Your task to perform on an android device: Open ESPN.com Image 0: 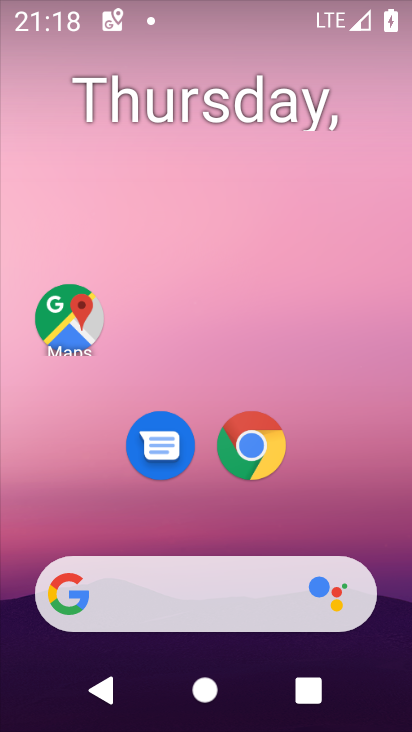
Step 0: click (255, 436)
Your task to perform on an android device: Open ESPN.com Image 1: 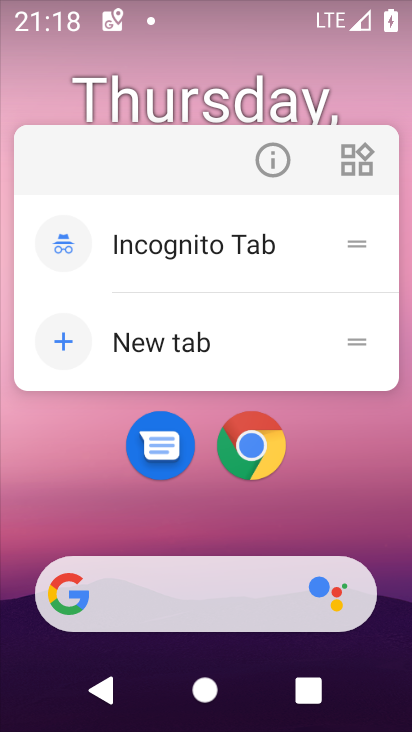
Step 1: click (277, 144)
Your task to perform on an android device: Open ESPN.com Image 2: 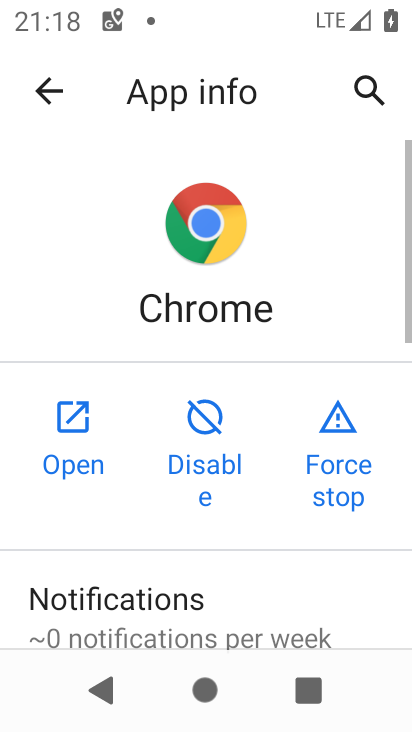
Step 2: click (77, 439)
Your task to perform on an android device: Open ESPN.com Image 3: 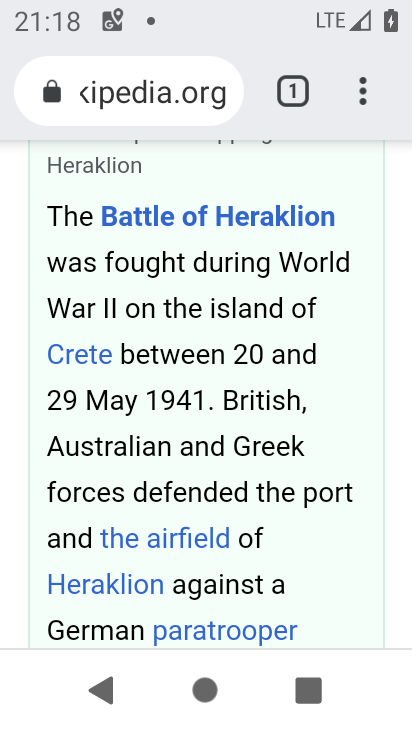
Step 3: drag from (227, 487) to (294, 179)
Your task to perform on an android device: Open ESPN.com Image 4: 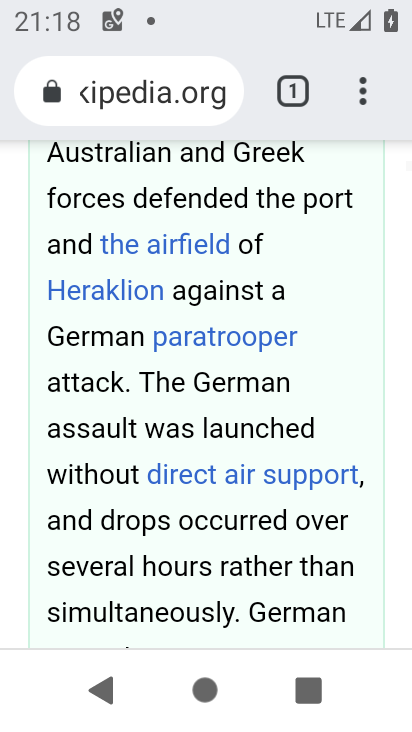
Step 4: drag from (276, 171) to (387, 727)
Your task to perform on an android device: Open ESPN.com Image 5: 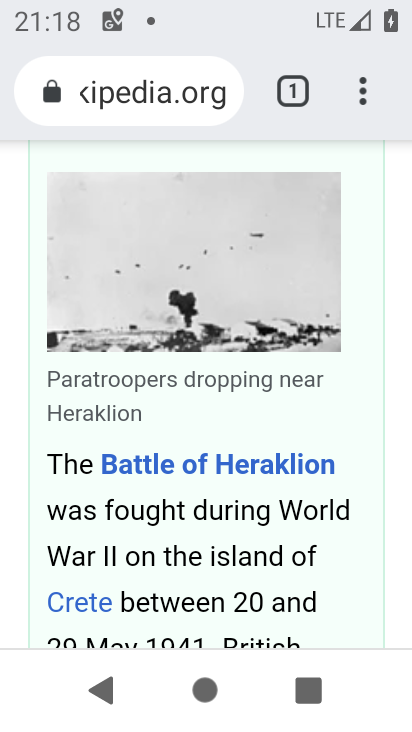
Step 5: click (300, 71)
Your task to perform on an android device: Open ESPN.com Image 6: 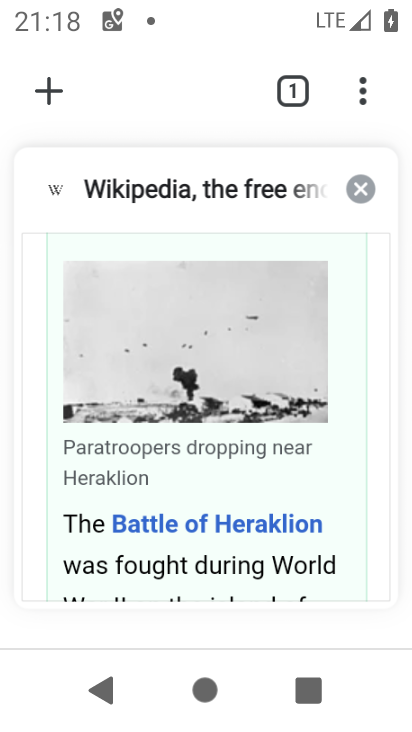
Step 6: click (60, 104)
Your task to perform on an android device: Open ESPN.com Image 7: 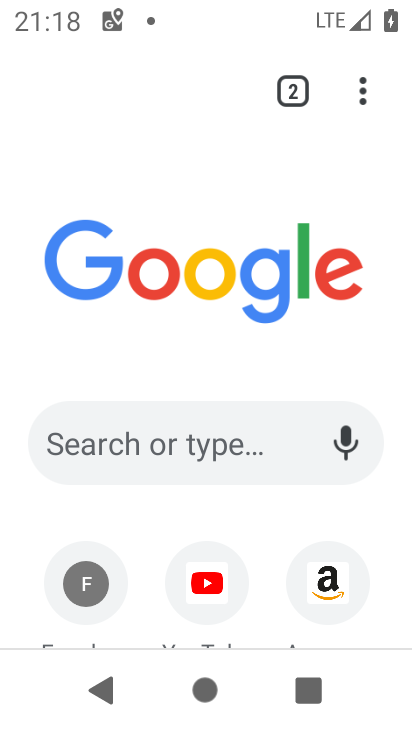
Step 7: drag from (246, 523) to (318, 21)
Your task to perform on an android device: Open ESPN.com Image 8: 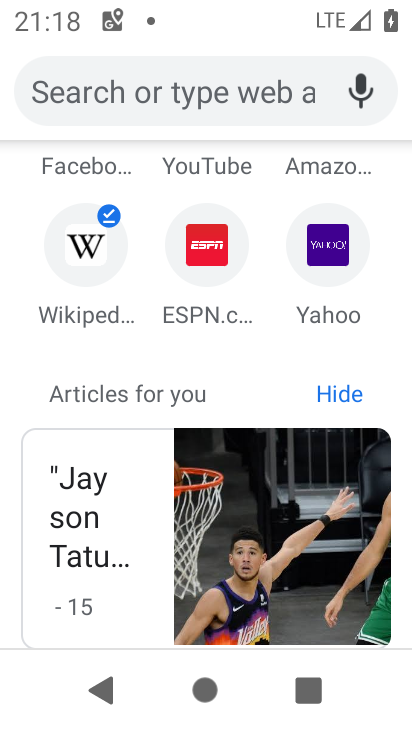
Step 8: drag from (73, 263) to (148, 532)
Your task to perform on an android device: Open ESPN.com Image 9: 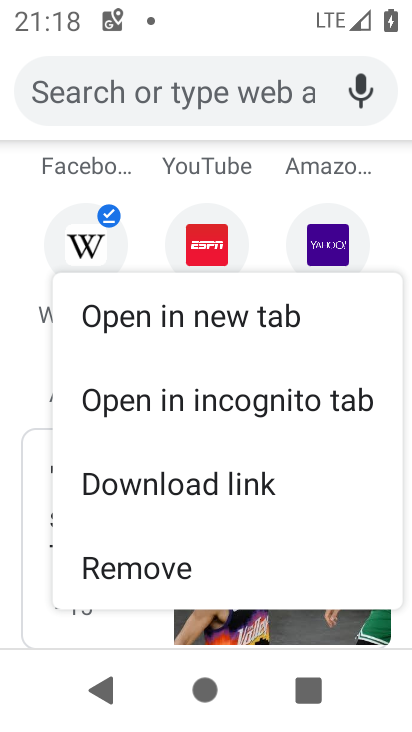
Step 9: click (271, 192)
Your task to perform on an android device: Open ESPN.com Image 10: 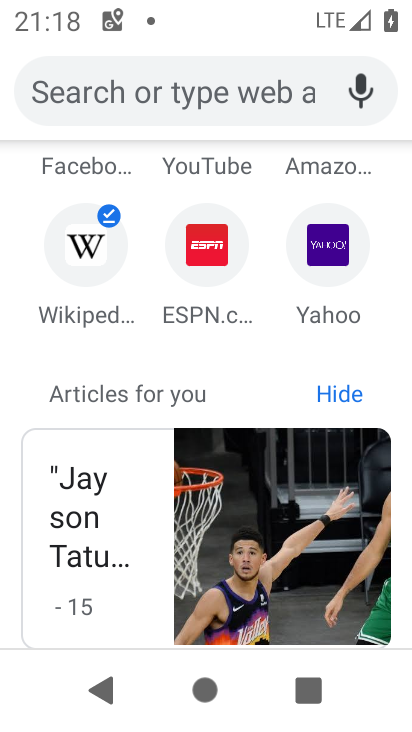
Step 10: click (212, 241)
Your task to perform on an android device: Open ESPN.com Image 11: 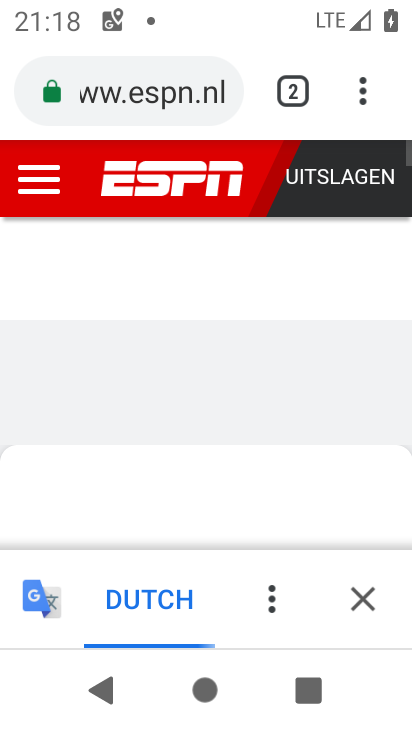
Step 11: task complete